Your task to perform on an android device: What's on my calendar tomorrow? Image 0: 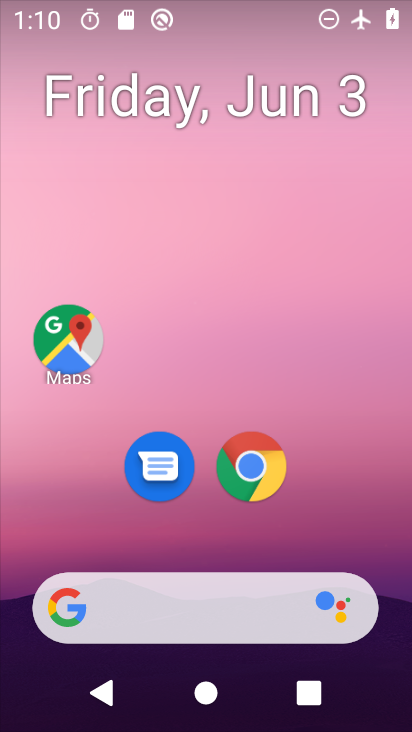
Step 0: drag from (208, 539) to (218, 176)
Your task to perform on an android device: What's on my calendar tomorrow? Image 1: 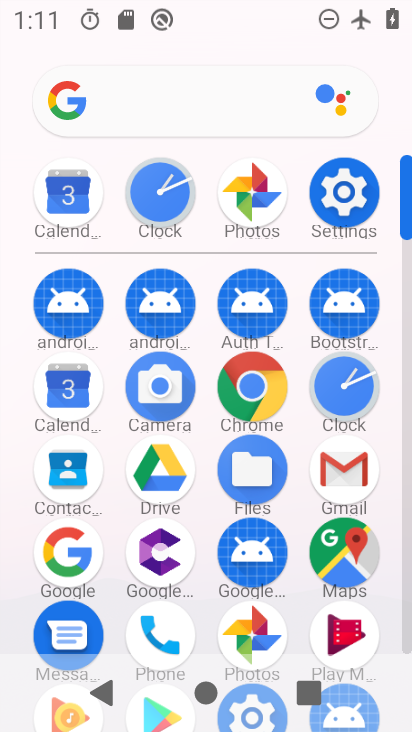
Step 1: click (60, 383)
Your task to perform on an android device: What's on my calendar tomorrow? Image 2: 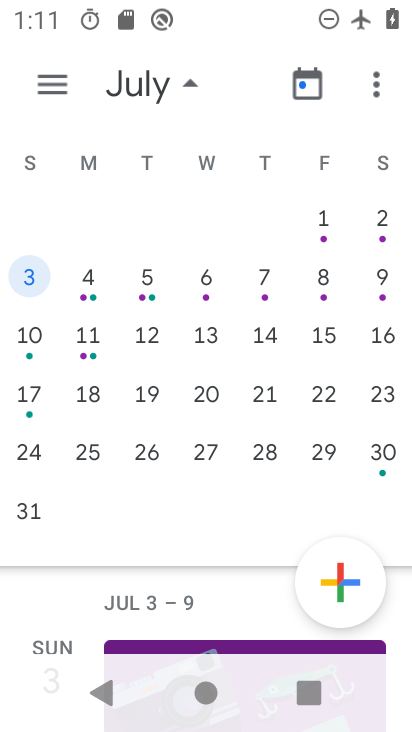
Step 2: click (356, 334)
Your task to perform on an android device: What's on my calendar tomorrow? Image 3: 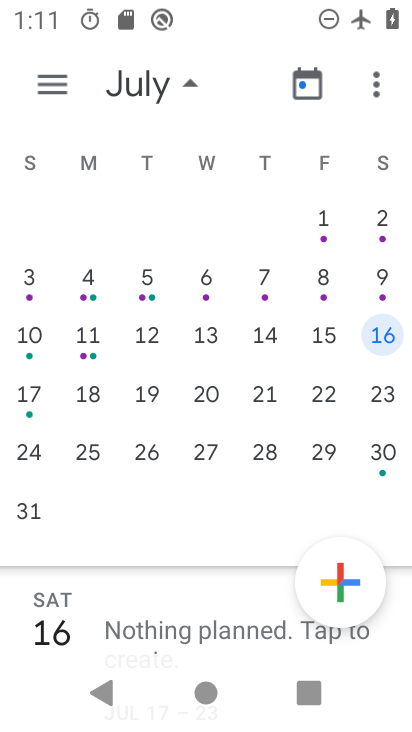
Step 3: drag from (54, 333) to (369, 320)
Your task to perform on an android device: What's on my calendar tomorrow? Image 4: 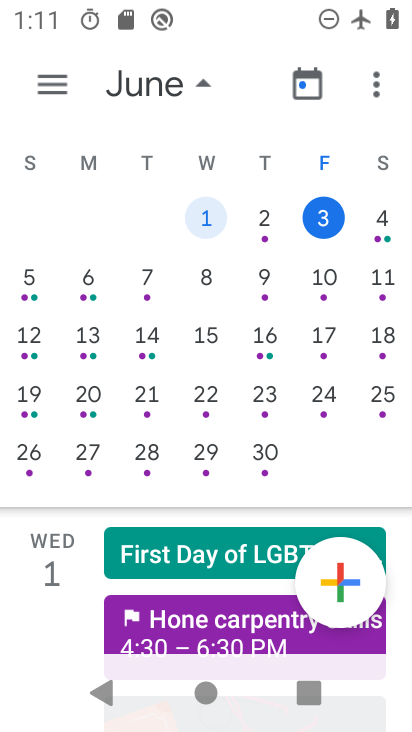
Step 4: click (372, 213)
Your task to perform on an android device: What's on my calendar tomorrow? Image 5: 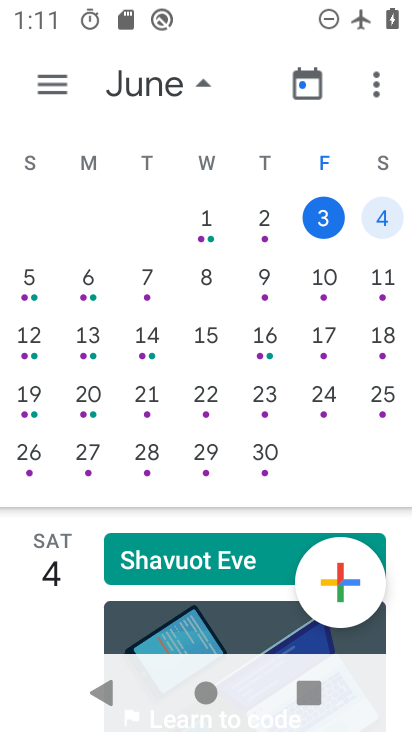
Step 5: click (362, 227)
Your task to perform on an android device: What's on my calendar tomorrow? Image 6: 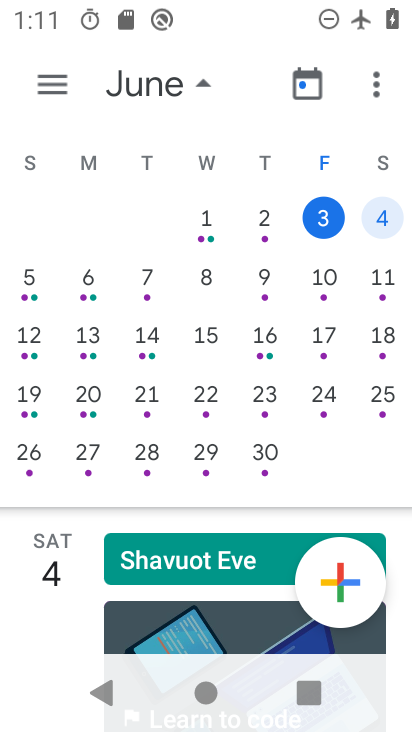
Step 6: click (382, 224)
Your task to perform on an android device: What's on my calendar tomorrow? Image 7: 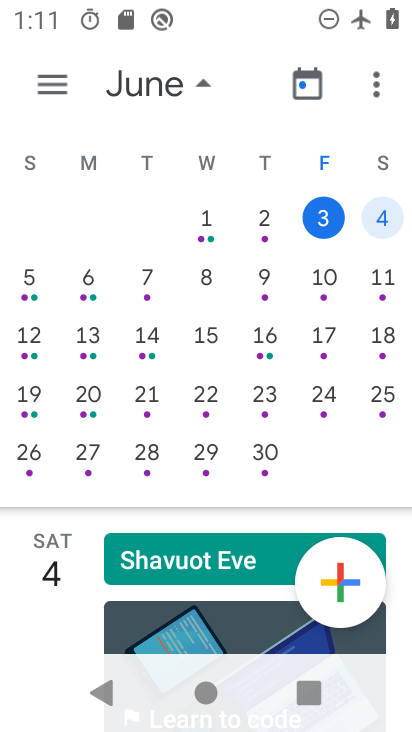
Step 7: task complete